Your task to perform on an android device: empty trash in google photos Image 0: 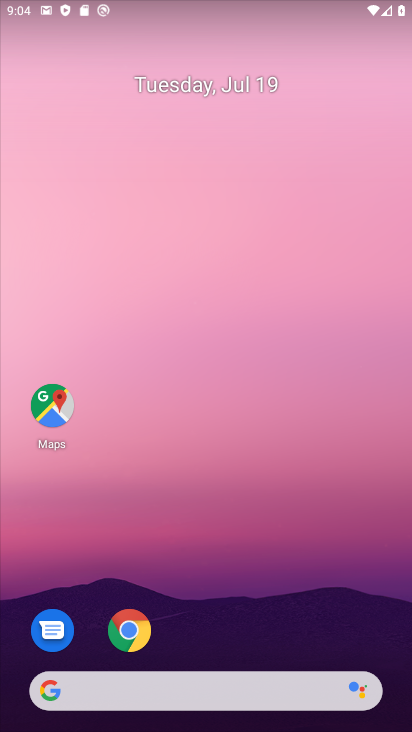
Step 0: drag from (105, 533) to (165, 213)
Your task to perform on an android device: empty trash in google photos Image 1: 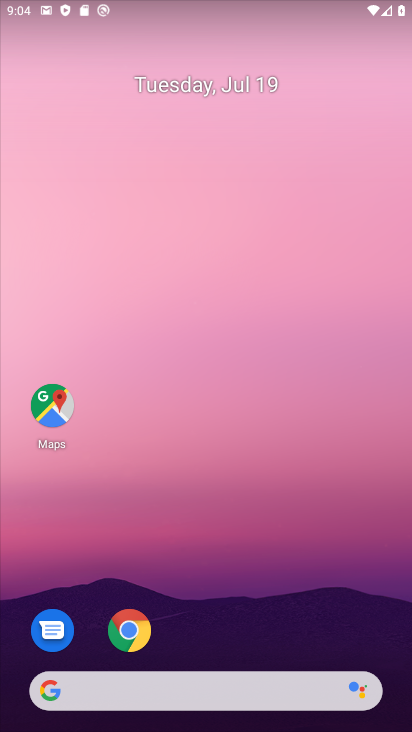
Step 1: drag from (23, 691) to (238, 81)
Your task to perform on an android device: empty trash in google photos Image 2: 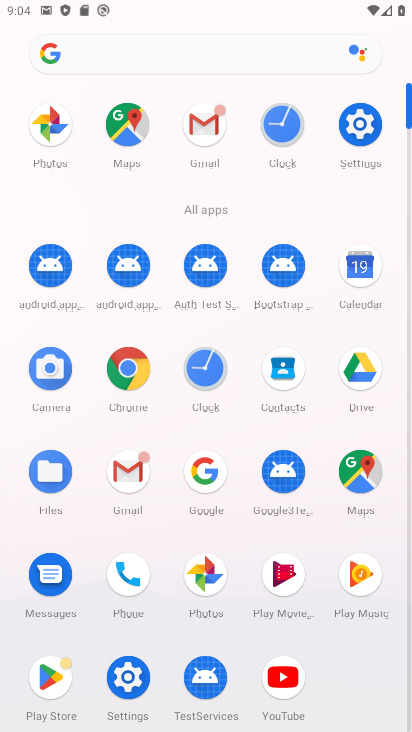
Step 2: click (205, 572)
Your task to perform on an android device: empty trash in google photos Image 3: 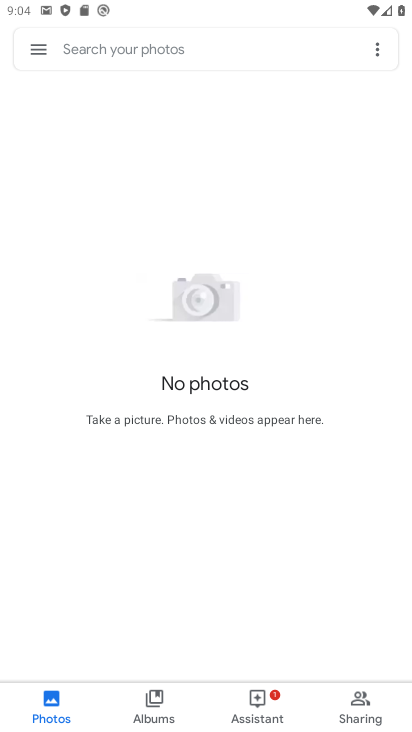
Step 3: click (48, 51)
Your task to perform on an android device: empty trash in google photos Image 4: 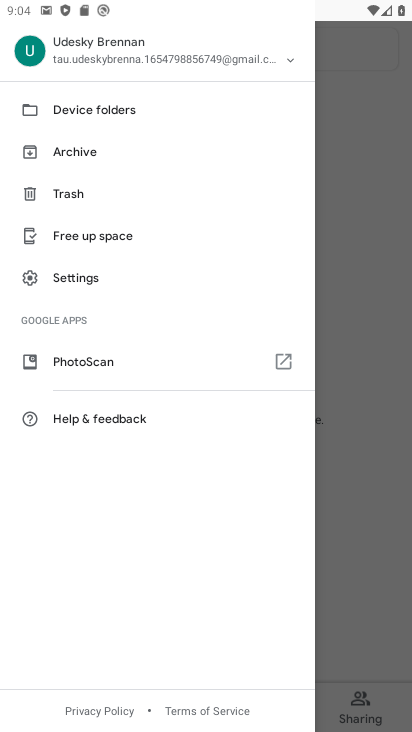
Step 4: click (88, 198)
Your task to perform on an android device: empty trash in google photos Image 5: 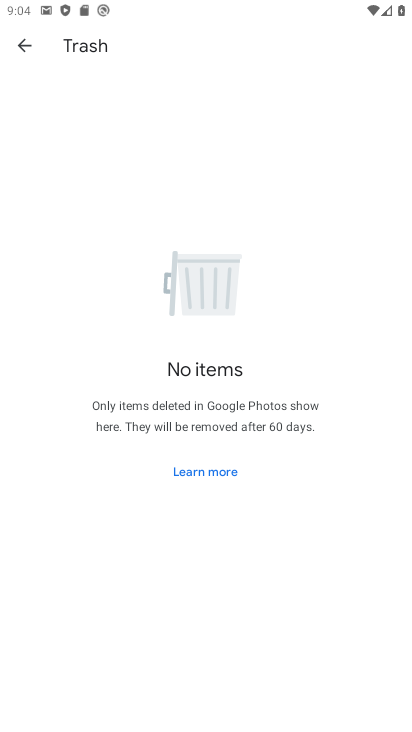
Step 5: task complete